Your task to perform on an android device: see creations saved in the google photos Image 0: 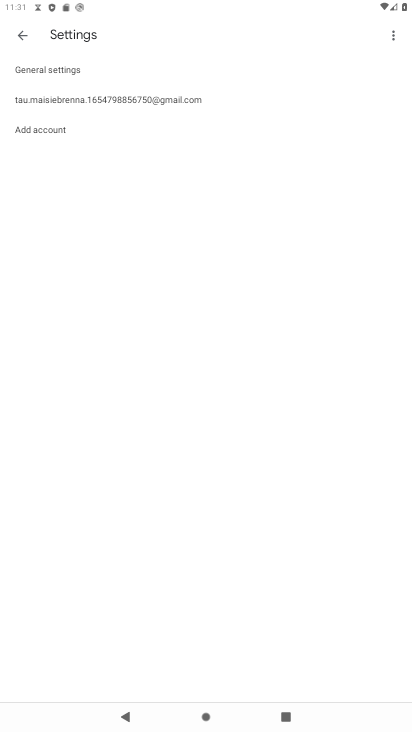
Step 0: press home button
Your task to perform on an android device: see creations saved in the google photos Image 1: 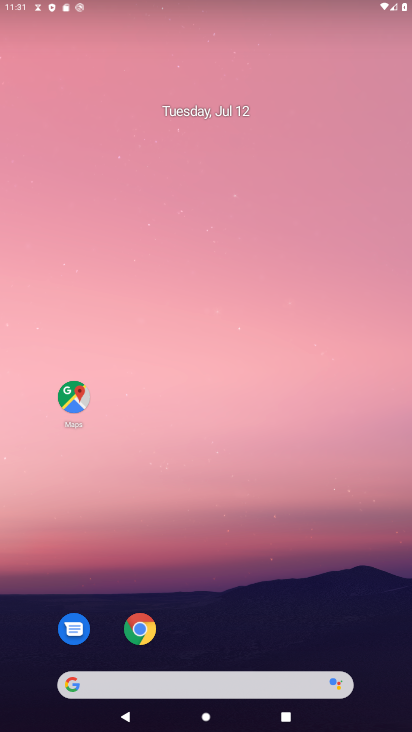
Step 1: drag from (307, 525) to (339, 3)
Your task to perform on an android device: see creations saved in the google photos Image 2: 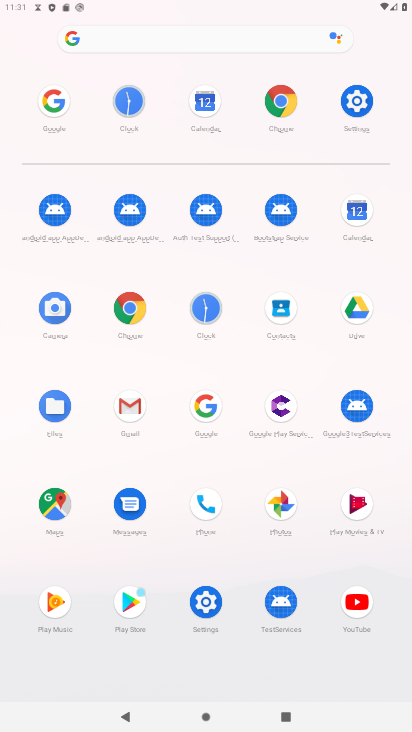
Step 2: click (289, 509)
Your task to perform on an android device: see creations saved in the google photos Image 3: 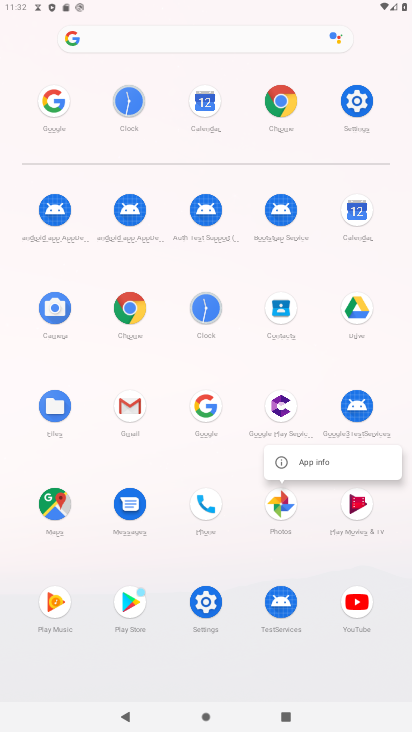
Step 3: click (284, 499)
Your task to perform on an android device: see creations saved in the google photos Image 4: 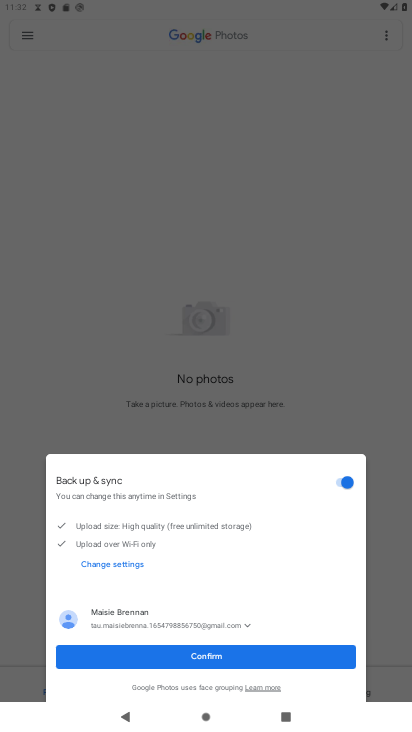
Step 4: click (201, 655)
Your task to perform on an android device: see creations saved in the google photos Image 5: 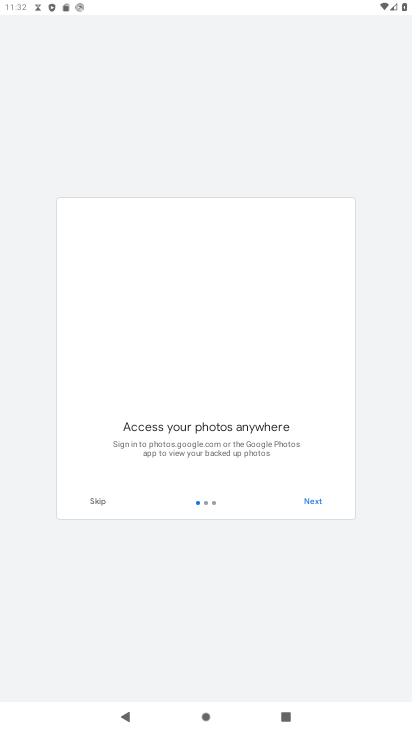
Step 5: click (320, 501)
Your task to perform on an android device: see creations saved in the google photos Image 6: 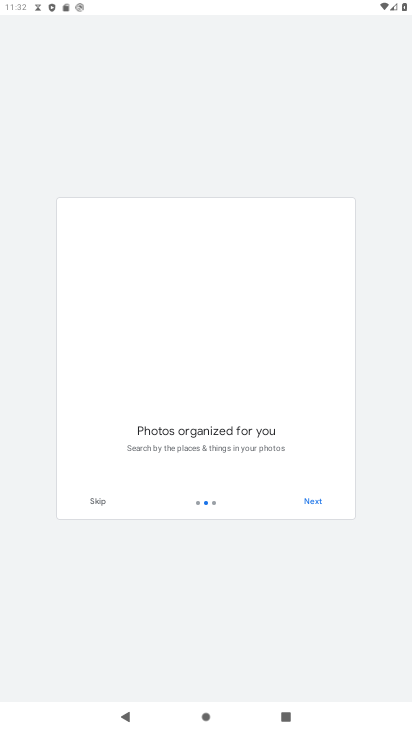
Step 6: click (327, 502)
Your task to perform on an android device: see creations saved in the google photos Image 7: 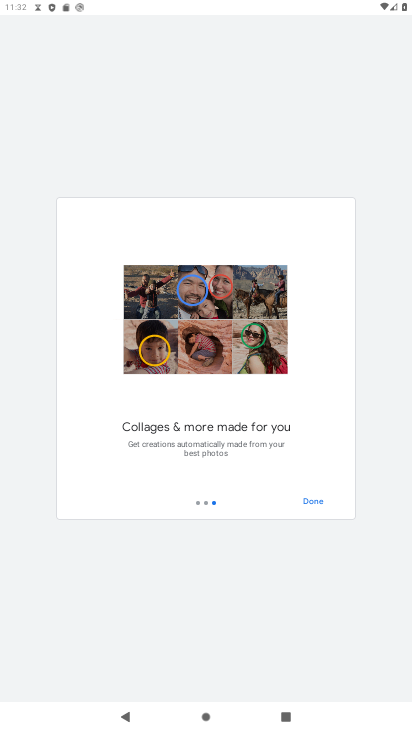
Step 7: click (327, 501)
Your task to perform on an android device: see creations saved in the google photos Image 8: 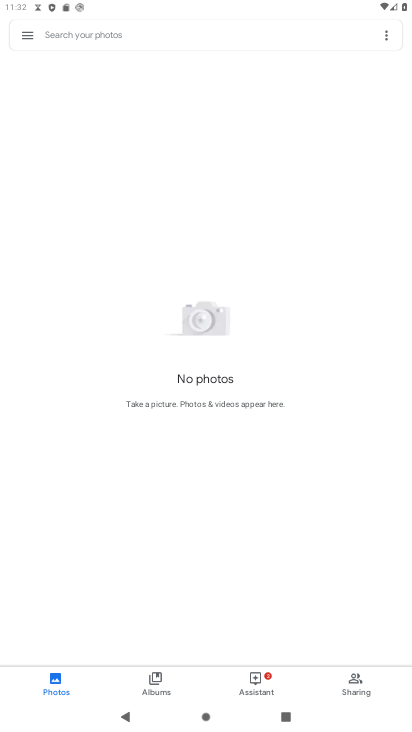
Step 8: click (147, 670)
Your task to perform on an android device: see creations saved in the google photos Image 9: 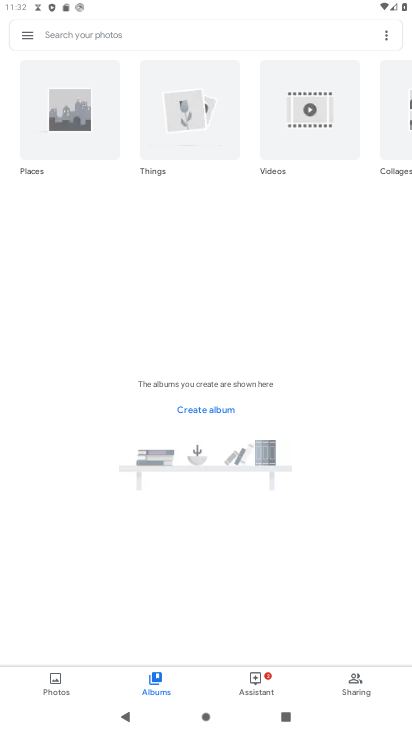
Step 9: task complete